Your task to perform on an android device: turn off location history Image 0: 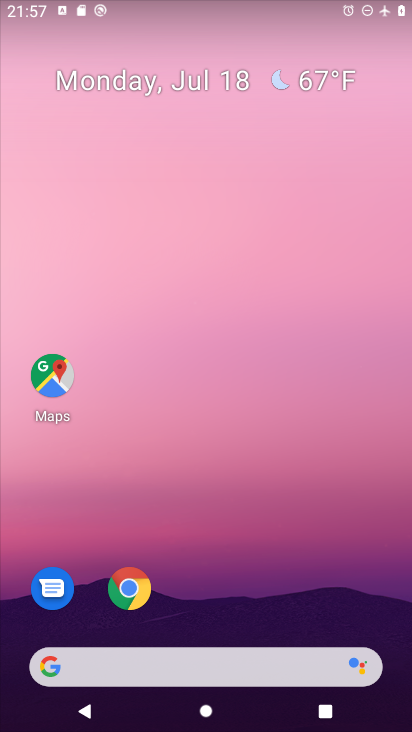
Step 0: click (51, 375)
Your task to perform on an android device: turn off location history Image 1: 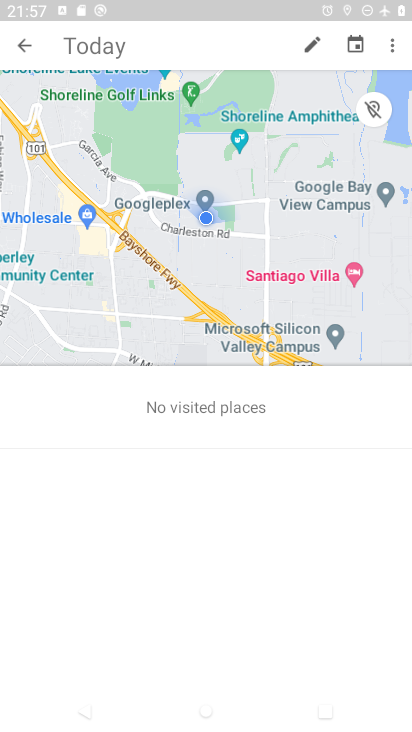
Step 1: press back button
Your task to perform on an android device: turn off location history Image 2: 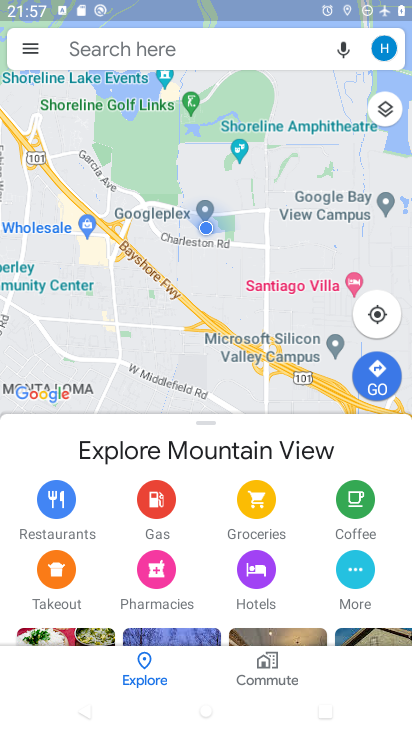
Step 2: click (26, 51)
Your task to perform on an android device: turn off location history Image 3: 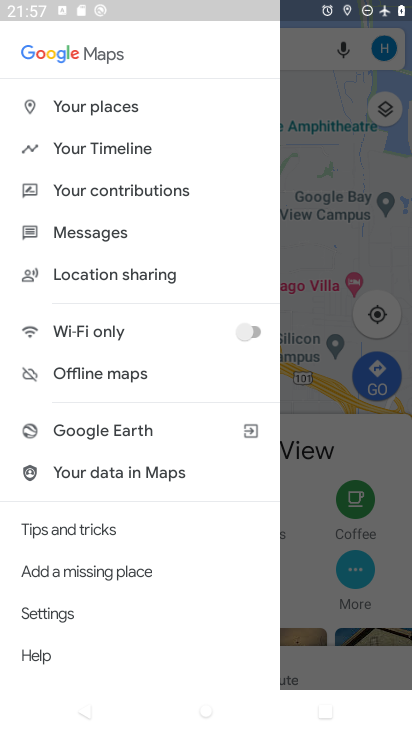
Step 3: click (63, 606)
Your task to perform on an android device: turn off location history Image 4: 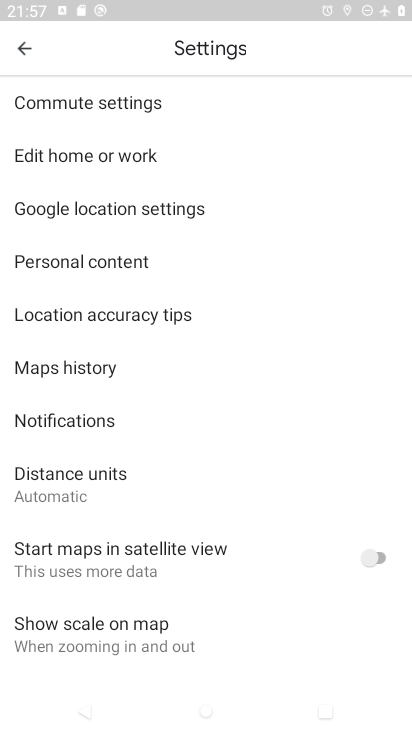
Step 4: click (100, 263)
Your task to perform on an android device: turn off location history Image 5: 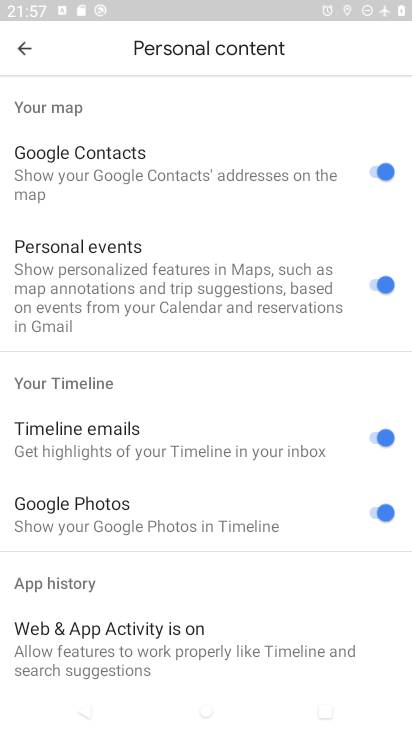
Step 5: task complete